Your task to perform on an android device: Search for sushi restaurants on Maps Image 0: 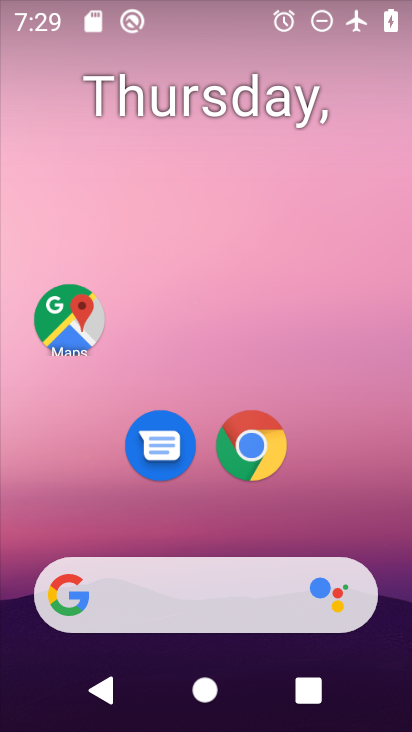
Step 0: click (63, 322)
Your task to perform on an android device: Search for sushi restaurants on Maps Image 1: 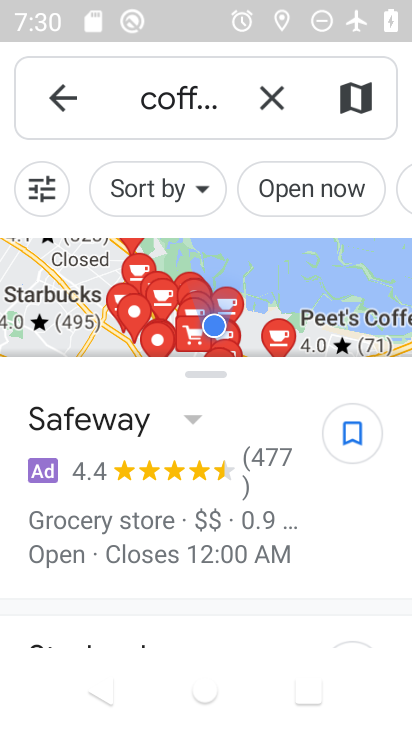
Step 1: click (266, 93)
Your task to perform on an android device: Search for sushi restaurants on Maps Image 2: 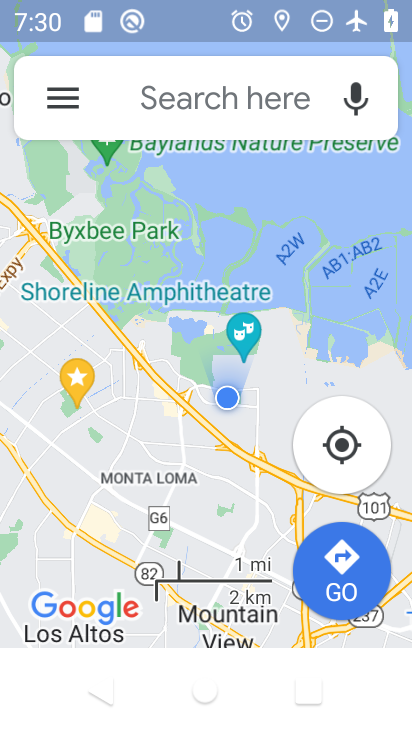
Step 2: click (197, 99)
Your task to perform on an android device: Search for sushi restaurants on Maps Image 3: 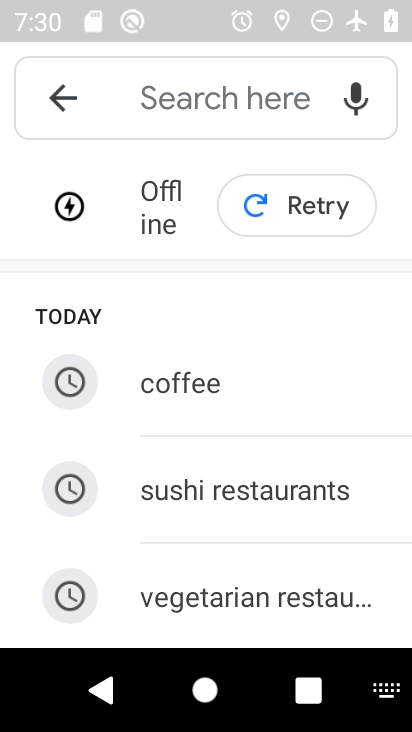
Step 3: type "sushi"
Your task to perform on an android device: Search for sushi restaurants on Maps Image 4: 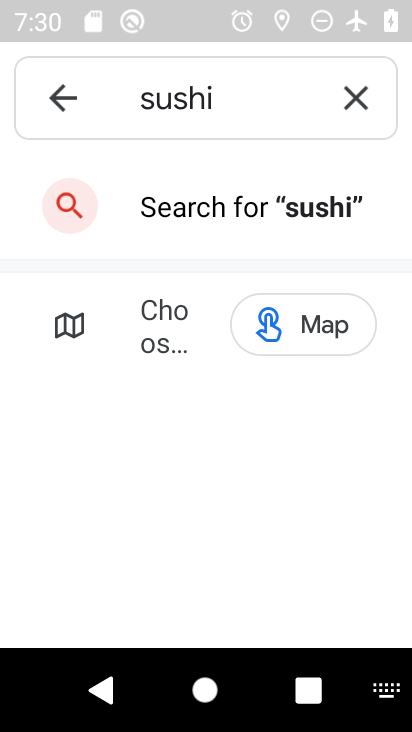
Step 4: click (296, 207)
Your task to perform on an android device: Search for sushi restaurants on Maps Image 5: 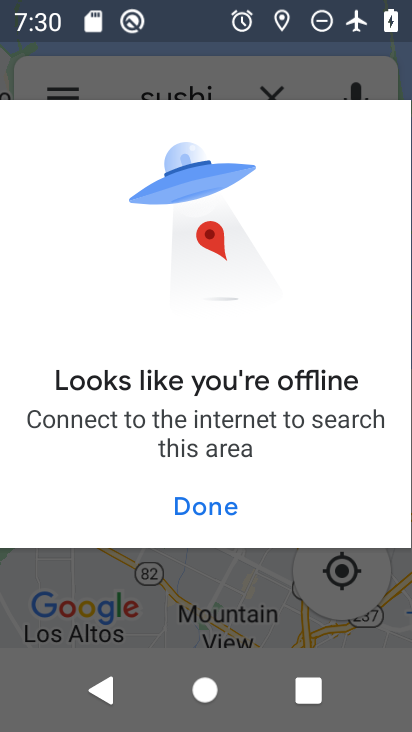
Step 5: click (212, 501)
Your task to perform on an android device: Search for sushi restaurants on Maps Image 6: 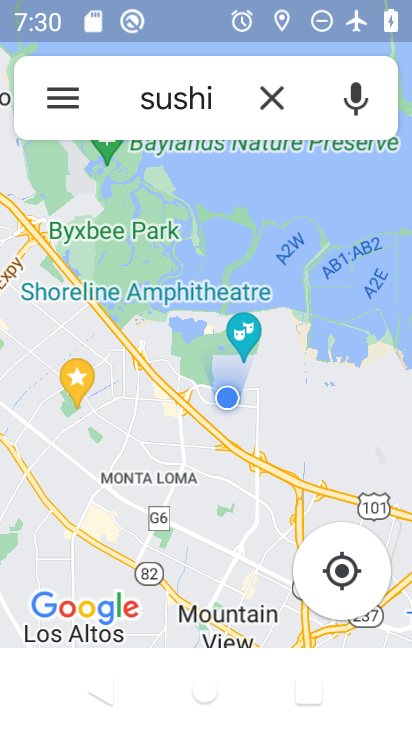
Step 6: task complete